Your task to perform on an android device: Open wifi settings Image 0: 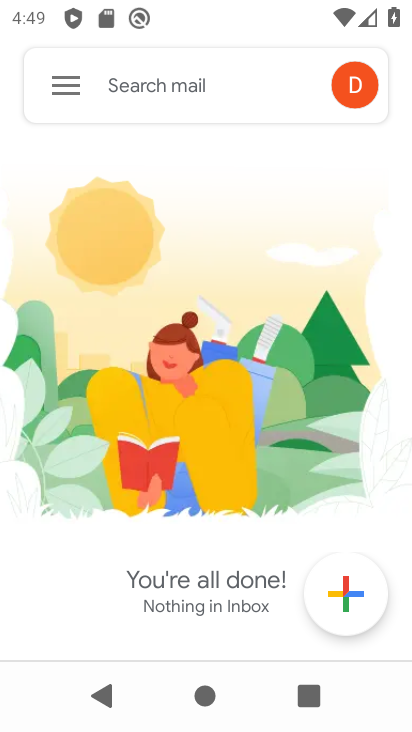
Step 0: press home button
Your task to perform on an android device: Open wifi settings Image 1: 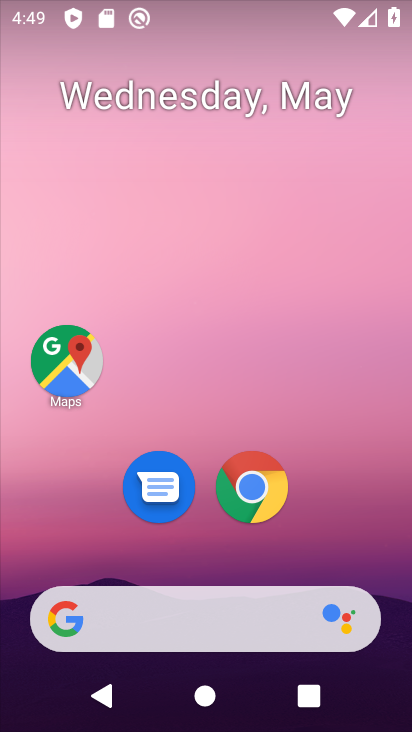
Step 1: drag from (302, 549) to (308, 164)
Your task to perform on an android device: Open wifi settings Image 2: 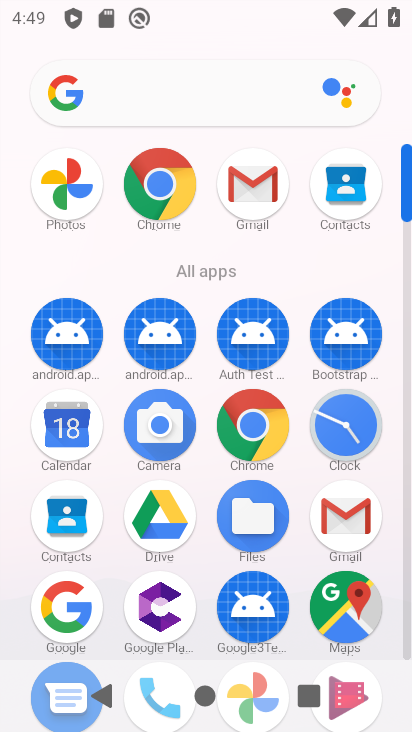
Step 2: click (409, 419)
Your task to perform on an android device: Open wifi settings Image 3: 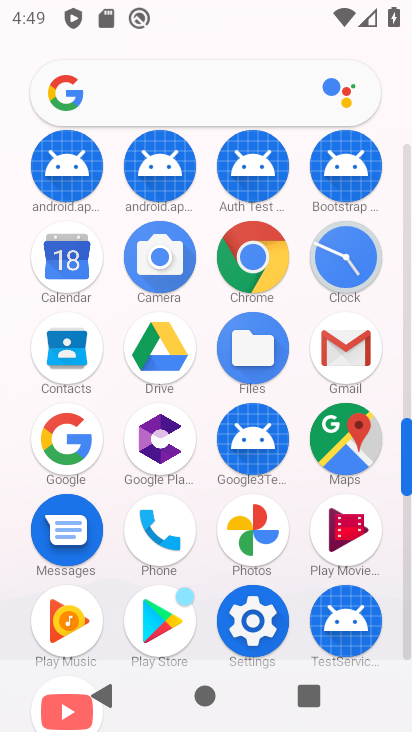
Step 3: click (243, 595)
Your task to perform on an android device: Open wifi settings Image 4: 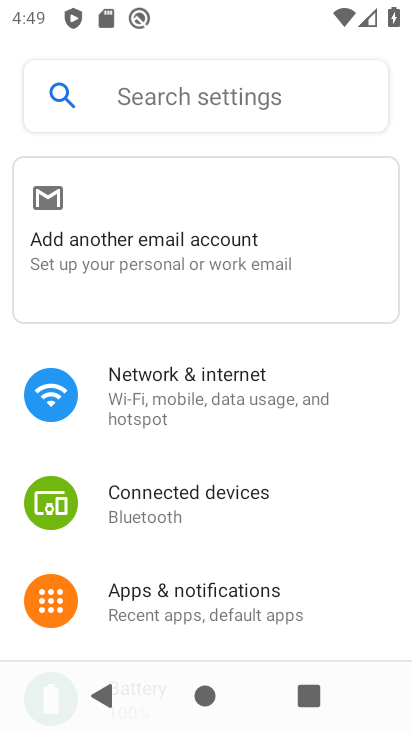
Step 4: click (200, 380)
Your task to perform on an android device: Open wifi settings Image 5: 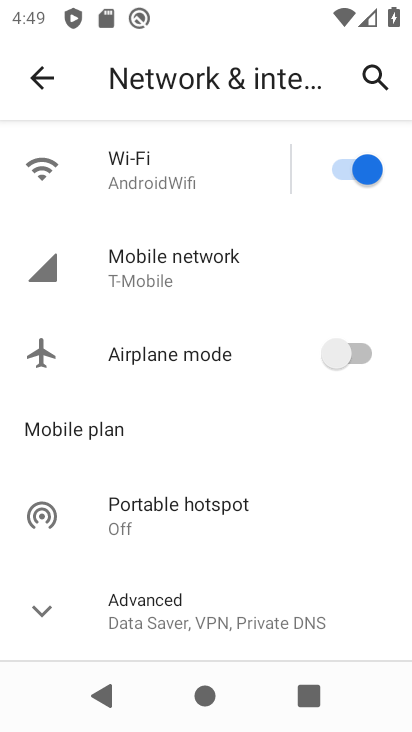
Step 5: click (211, 209)
Your task to perform on an android device: Open wifi settings Image 6: 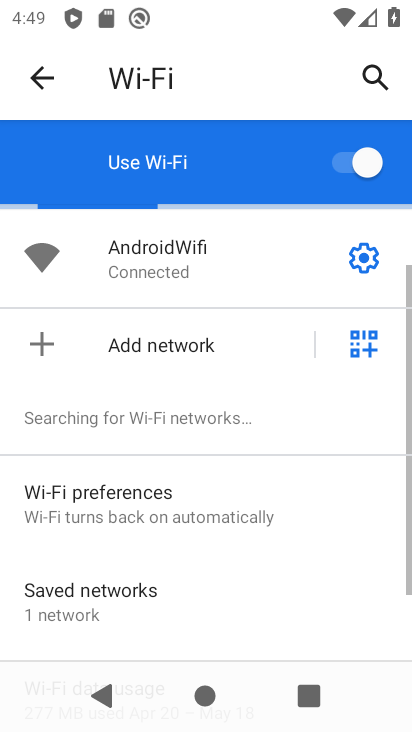
Step 6: task complete